Your task to perform on an android device: change alarm snooze length Image 0: 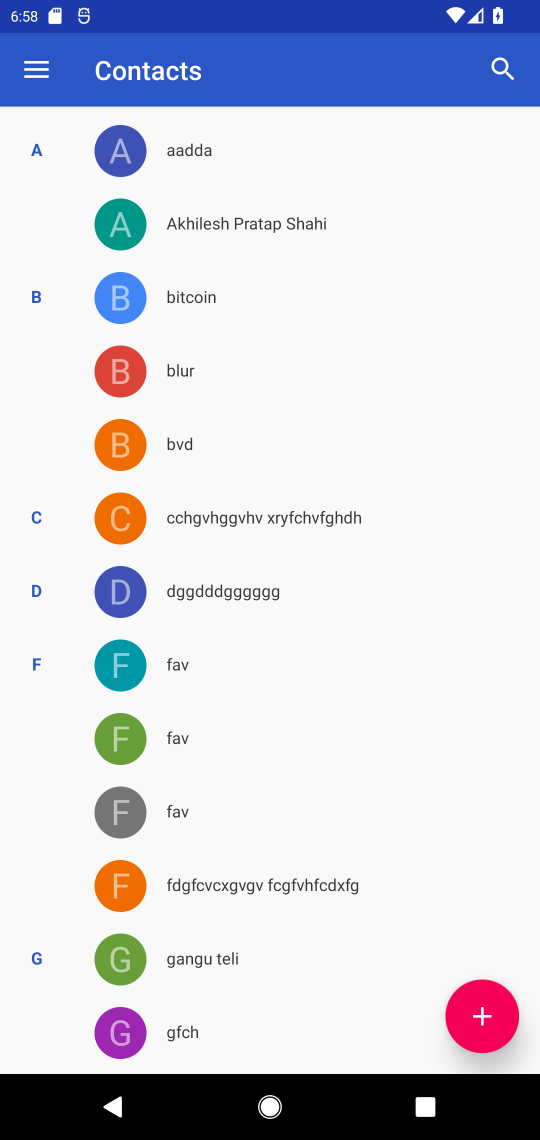
Step 0: press home button
Your task to perform on an android device: change alarm snooze length Image 1: 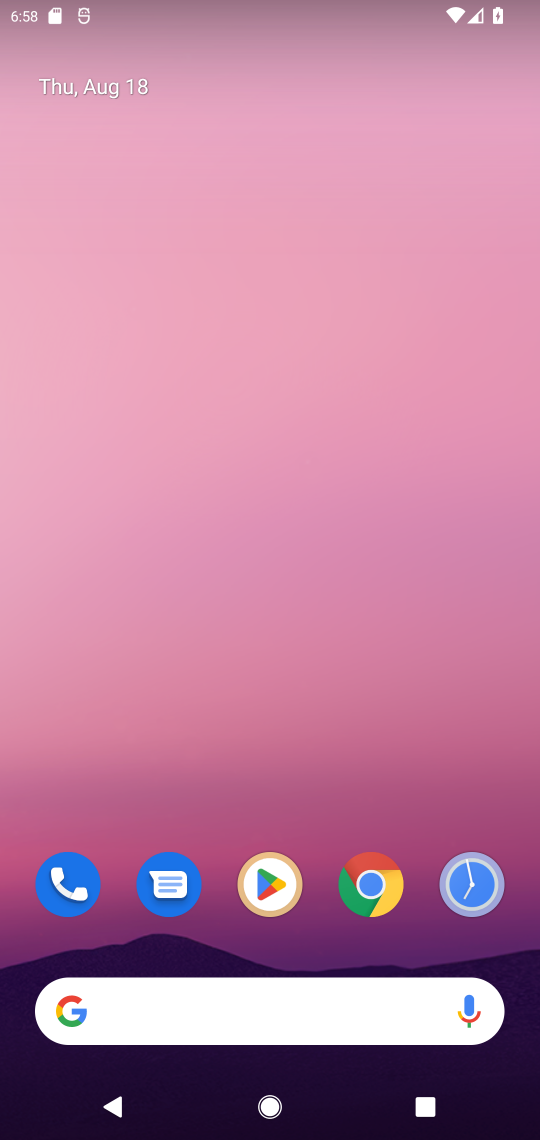
Step 1: drag from (273, 255) to (257, 113)
Your task to perform on an android device: change alarm snooze length Image 2: 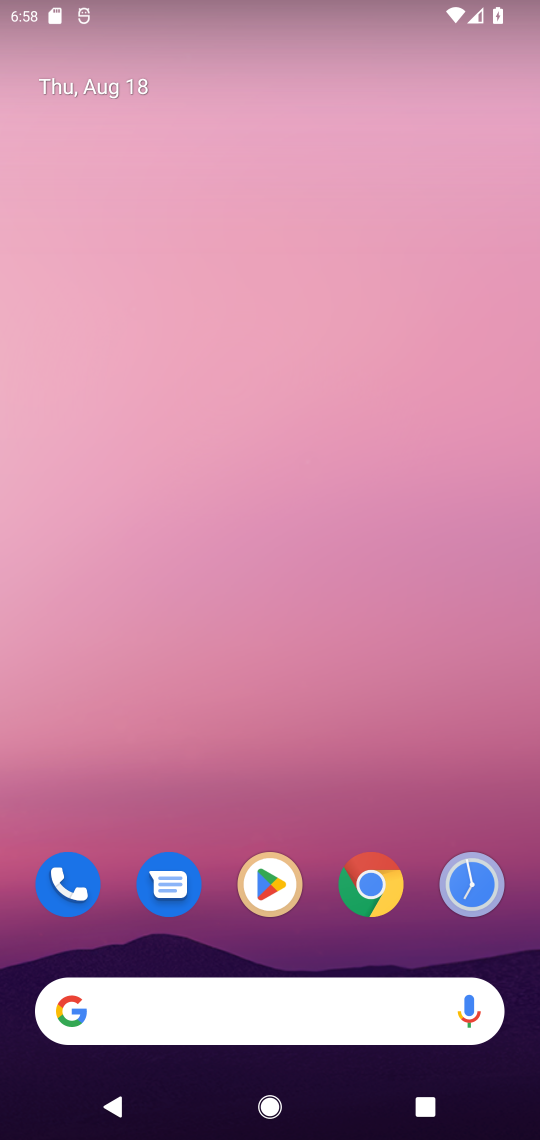
Step 2: drag from (217, 941) to (319, 188)
Your task to perform on an android device: change alarm snooze length Image 3: 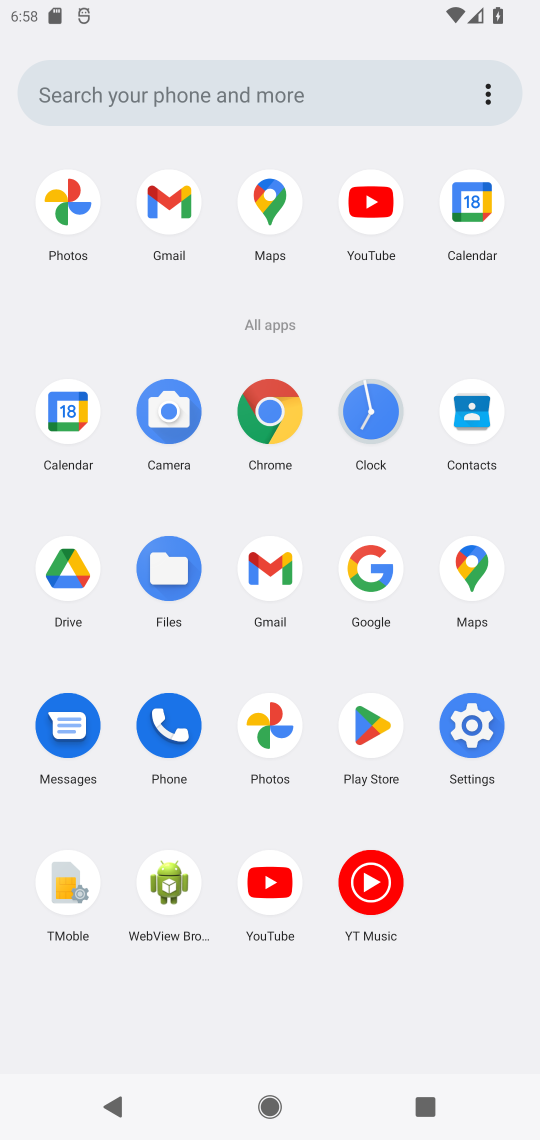
Step 3: click (67, 199)
Your task to perform on an android device: change alarm snooze length Image 4: 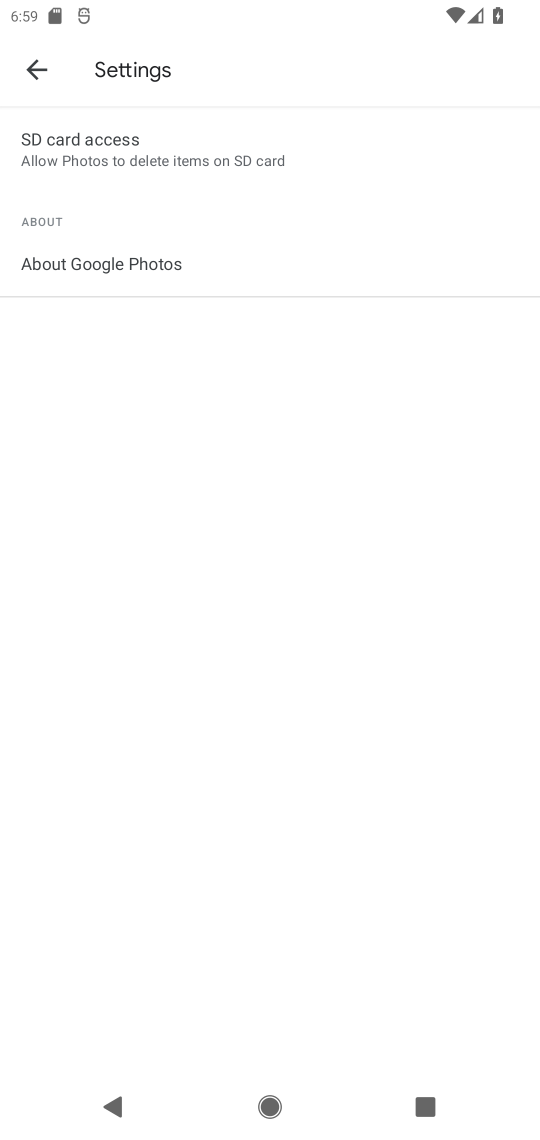
Step 4: click (23, 82)
Your task to perform on an android device: change alarm snooze length Image 5: 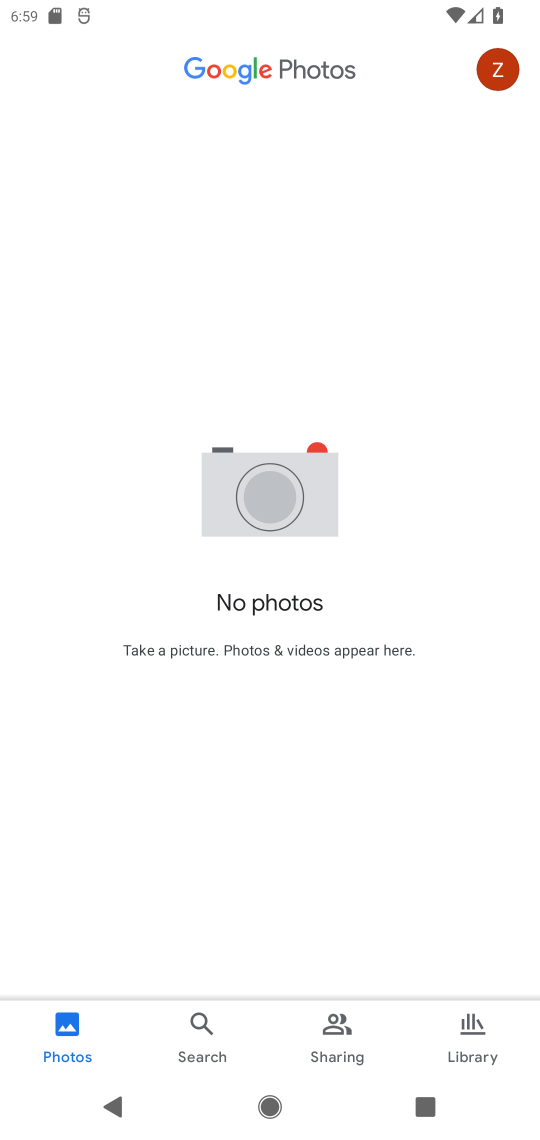
Step 5: task complete